Your task to perform on an android device: snooze an email in the gmail app Image 0: 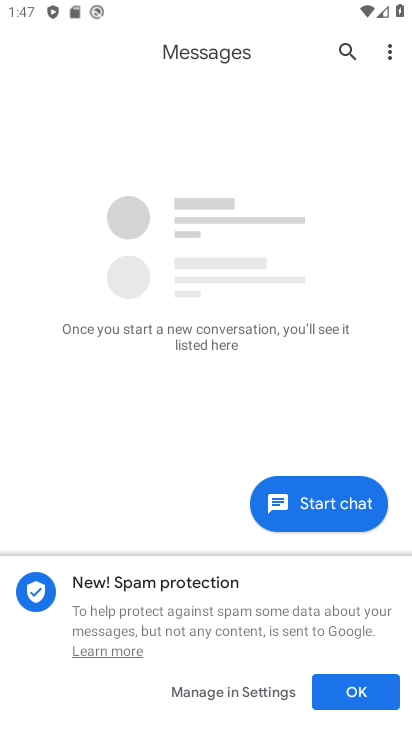
Step 0: press home button
Your task to perform on an android device: snooze an email in the gmail app Image 1: 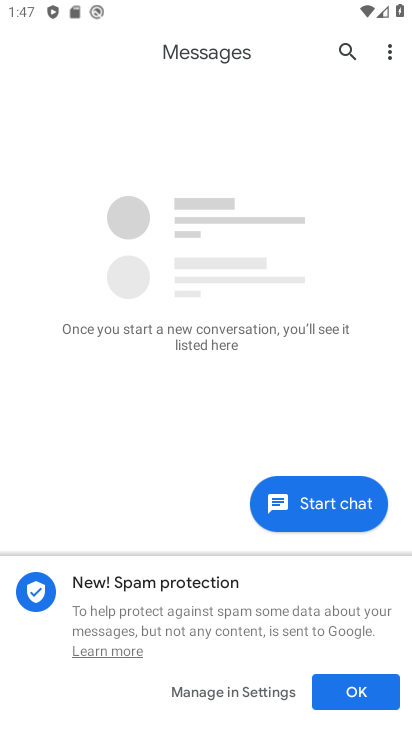
Step 1: press home button
Your task to perform on an android device: snooze an email in the gmail app Image 2: 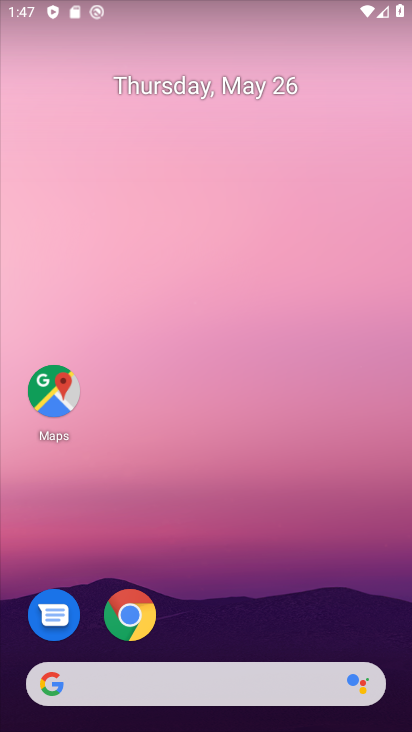
Step 2: drag from (228, 645) to (259, 86)
Your task to perform on an android device: snooze an email in the gmail app Image 3: 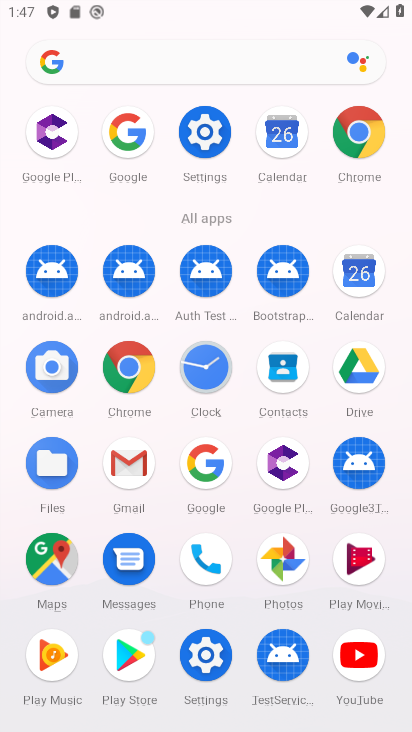
Step 3: click (129, 455)
Your task to perform on an android device: snooze an email in the gmail app Image 4: 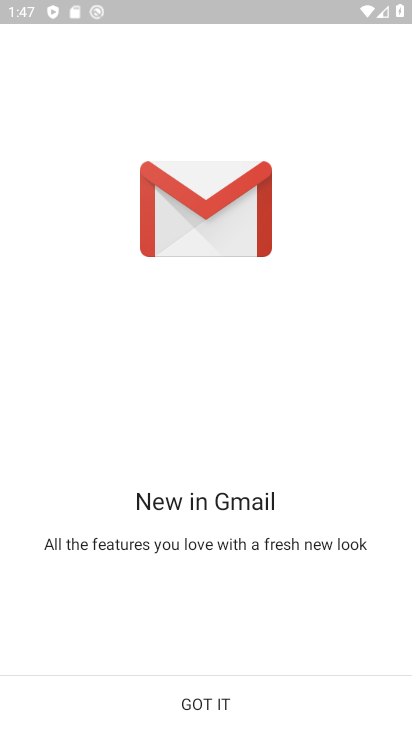
Step 4: click (210, 704)
Your task to perform on an android device: snooze an email in the gmail app Image 5: 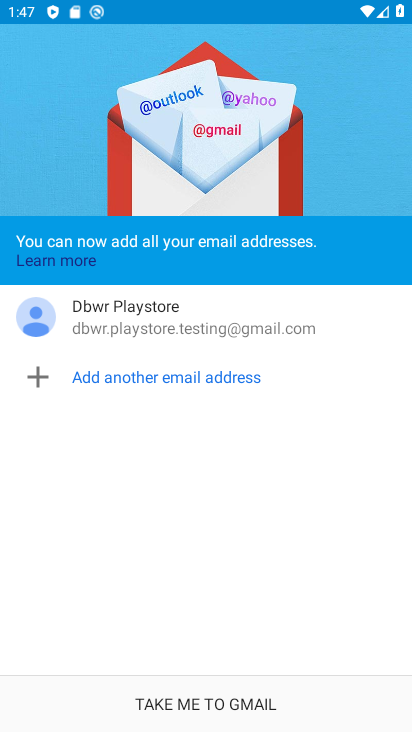
Step 5: click (210, 704)
Your task to perform on an android device: snooze an email in the gmail app Image 6: 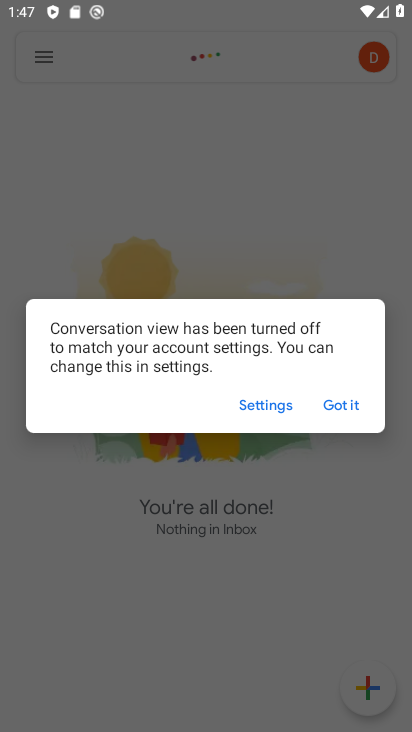
Step 6: click (340, 409)
Your task to perform on an android device: snooze an email in the gmail app Image 7: 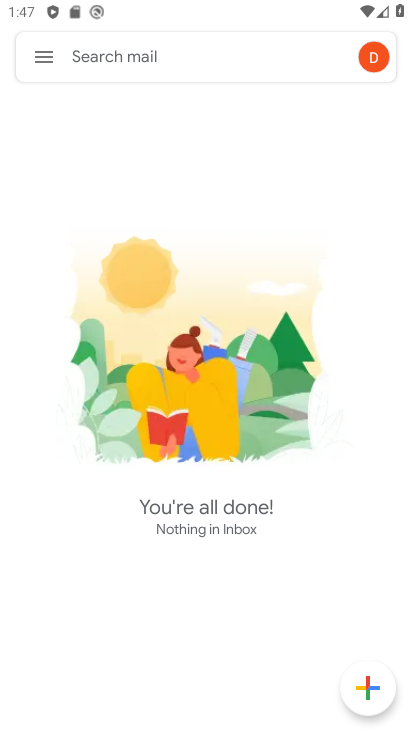
Step 7: task complete